Your task to perform on an android device: see creations saved in the google photos Image 0: 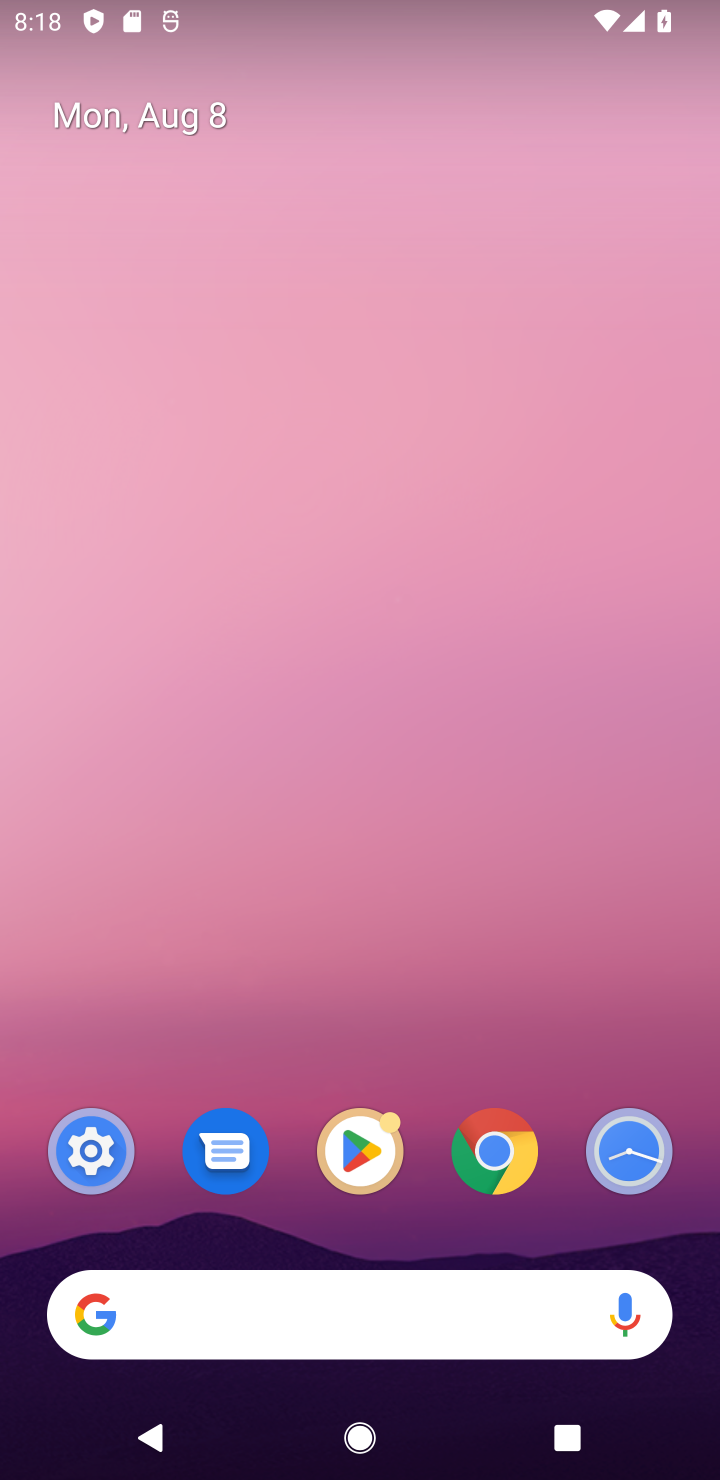
Step 0: drag from (489, 970) to (365, 0)
Your task to perform on an android device: see creations saved in the google photos Image 1: 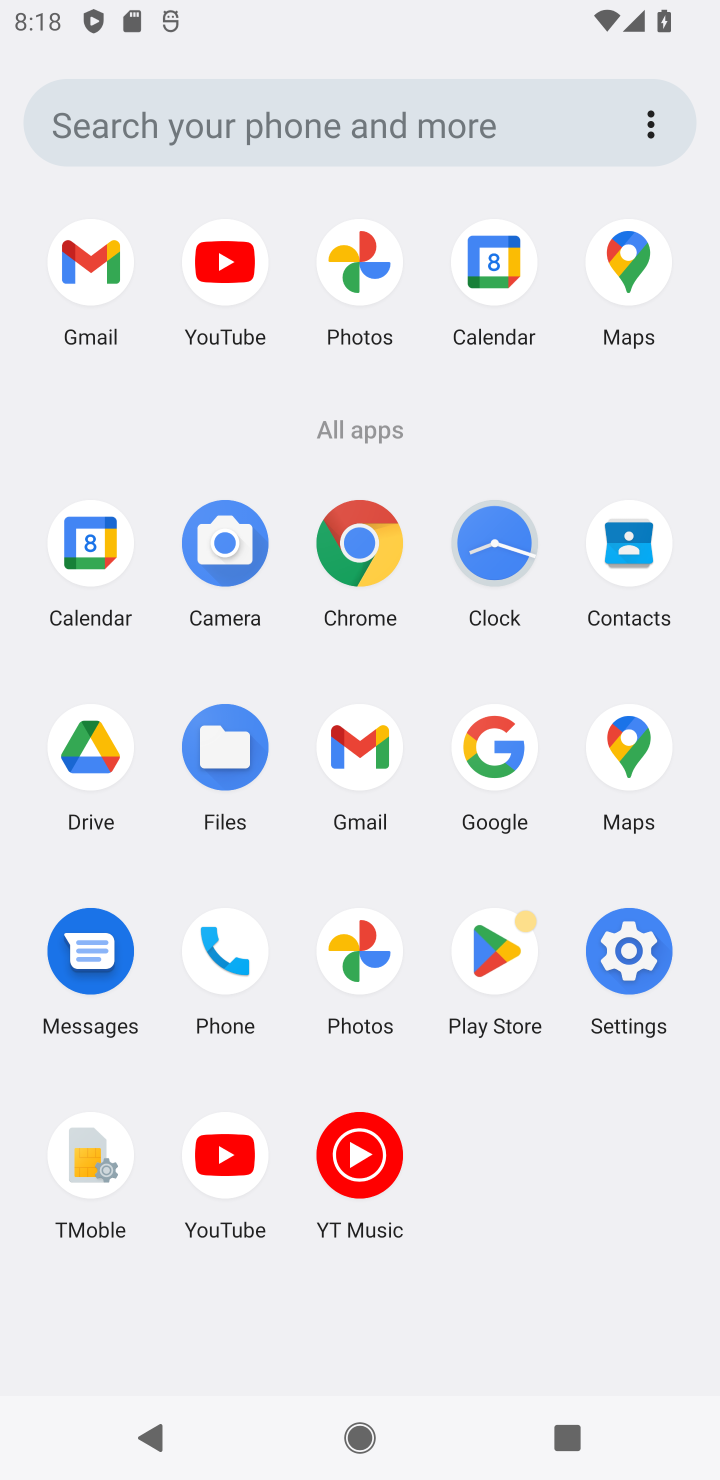
Step 1: click (336, 958)
Your task to perform on an android device: see creations saved in the google photos Image 2: 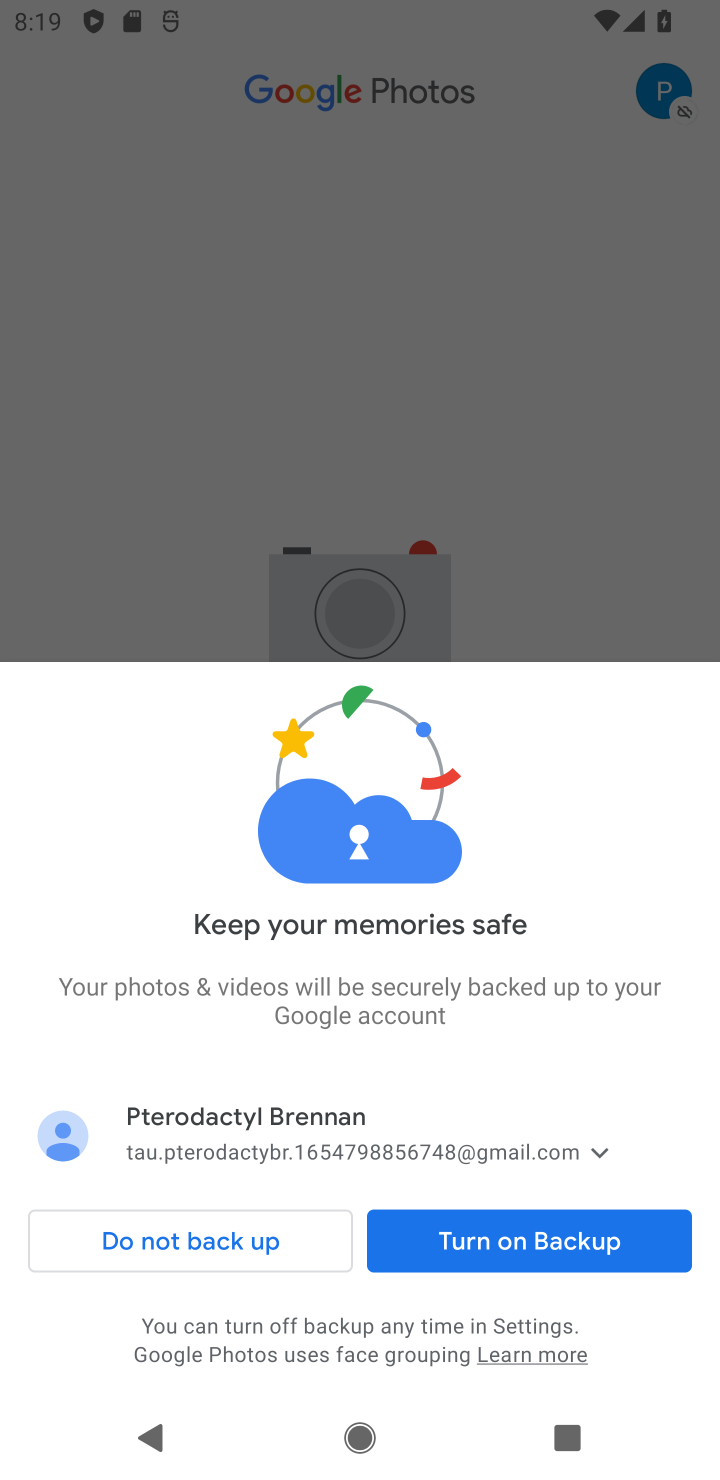
Step 2: click (601, 1235)
Your task to perform on an android device: see creations saved in the google photos Image 3: 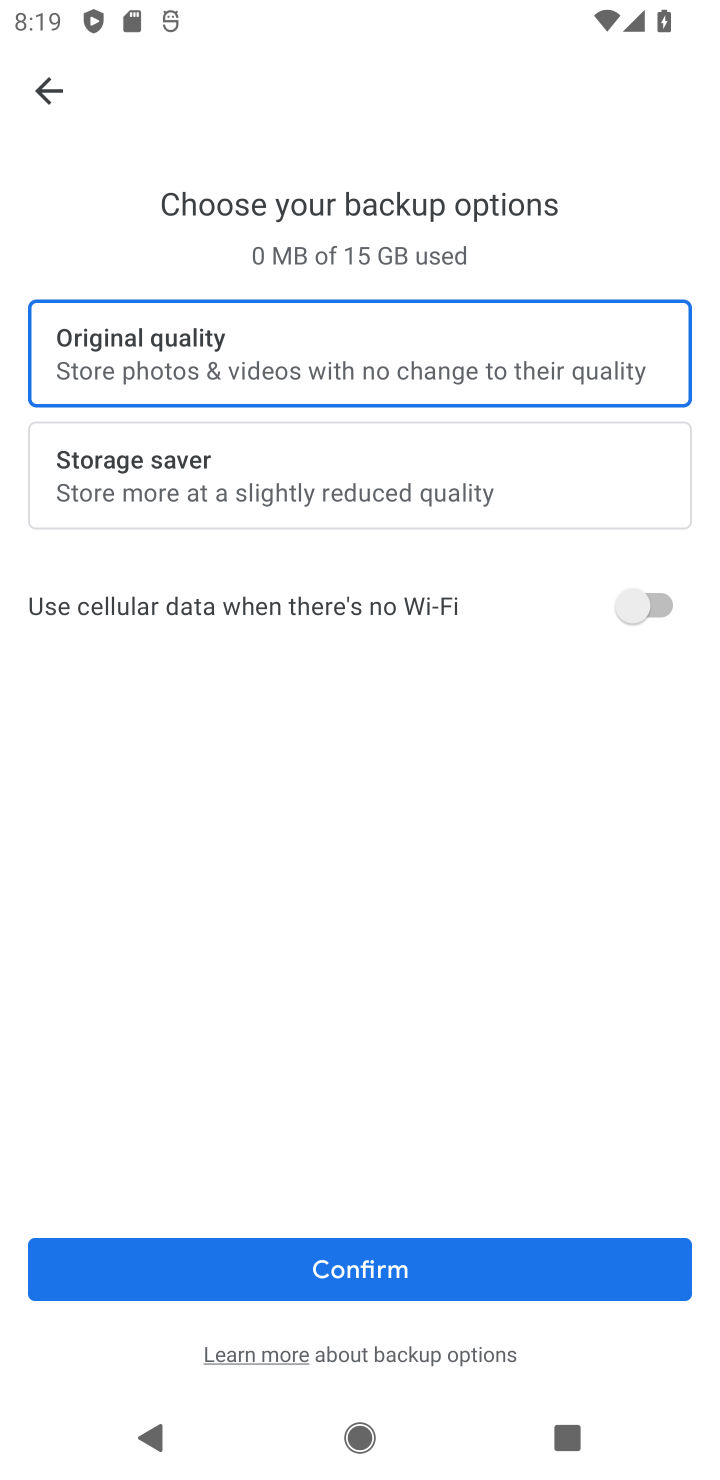
Step 3: click (546, 1258)
Your task to perform on an android device: see creations saved in the google photos Image 4: 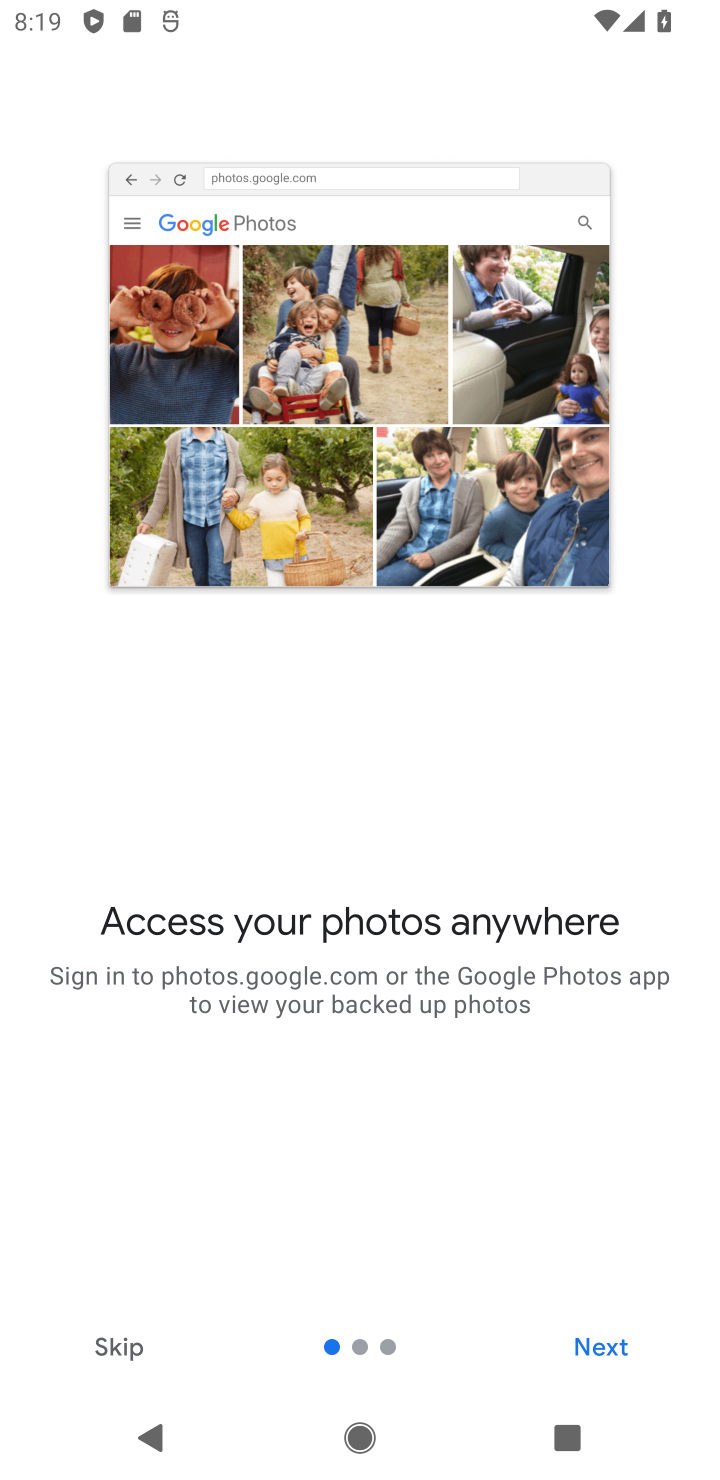
Step 4: click (103, 1354)
Your task to perform on an android device: see creations saved in the google photos Image 5: 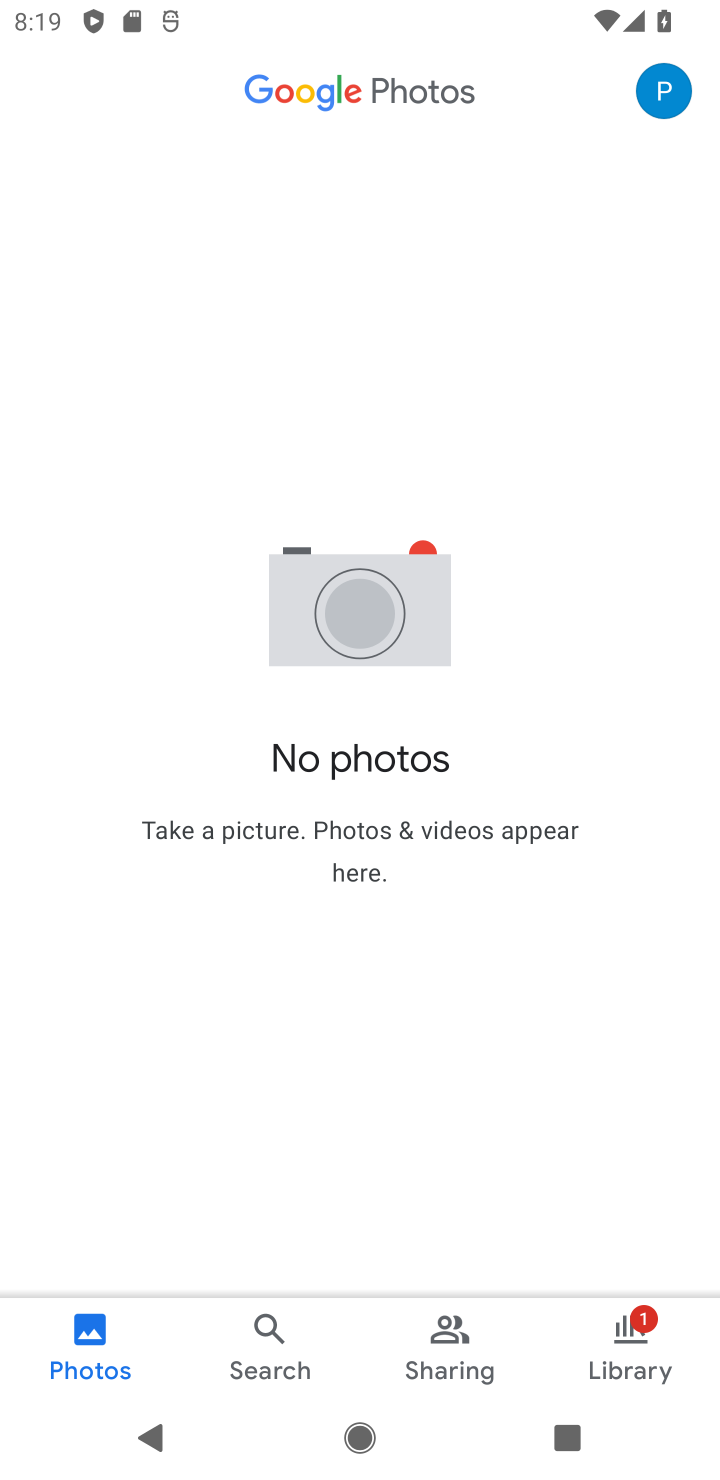
Step 5: click (277, 1317)
Your task to perform on an android device: see creations saved in the google photos Image 6: 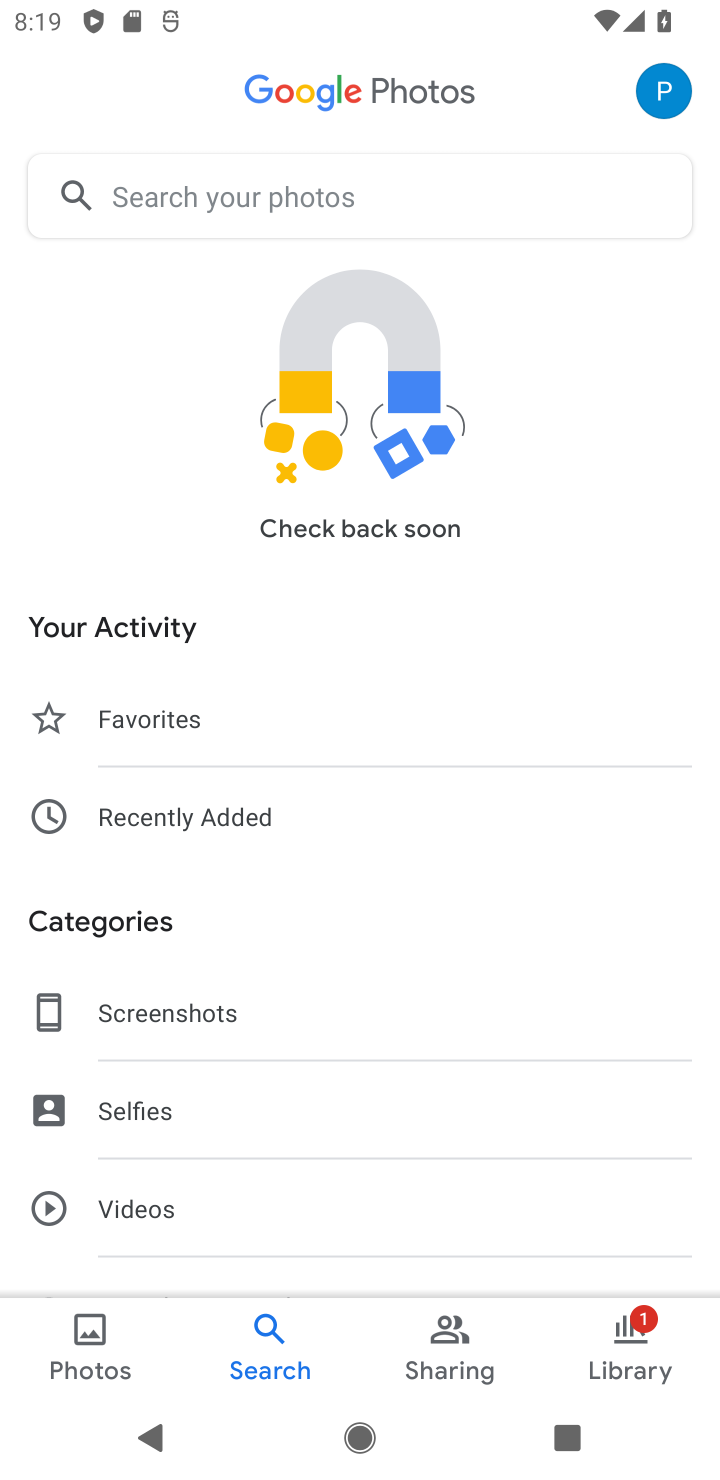
Step 6: click (328, 175)
Your task to perform on an android device: see creations saved in the google photos Image 7: 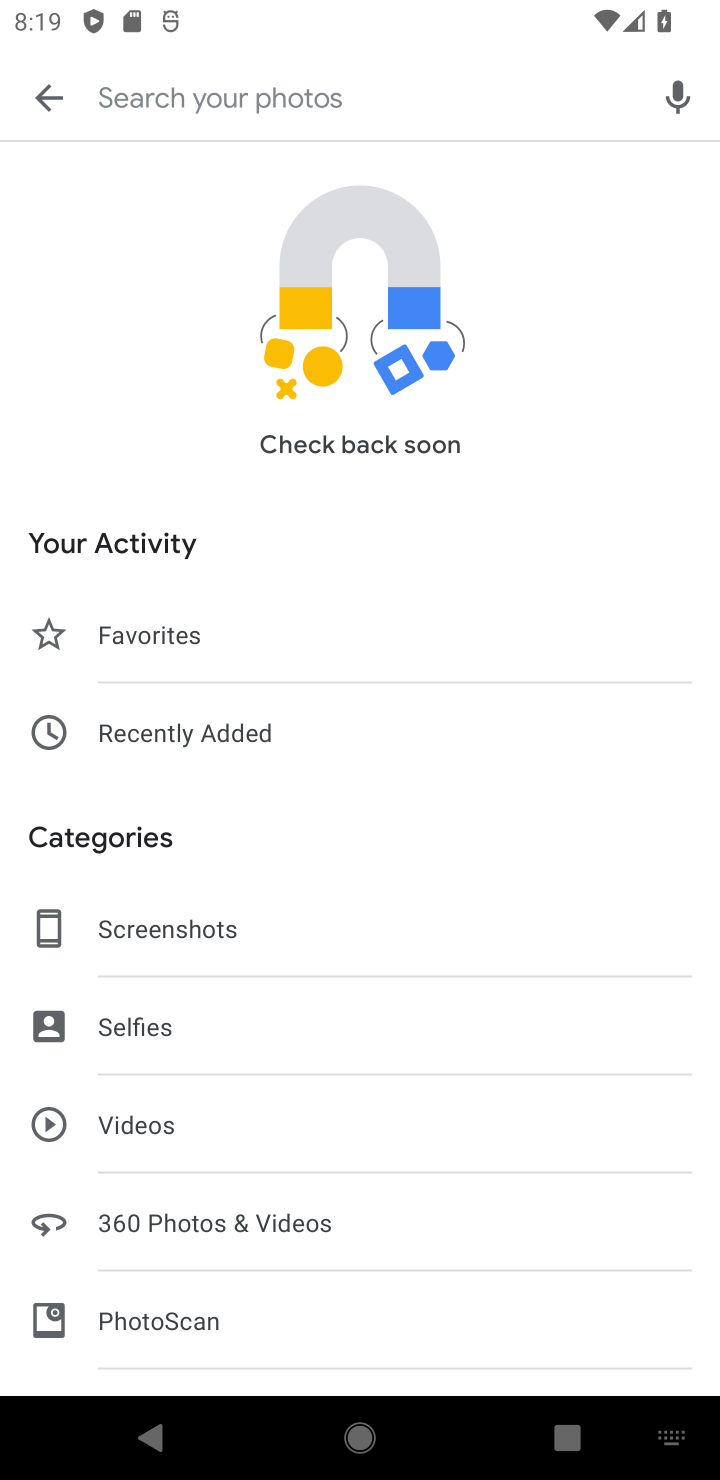
Step 7: drag from (334, 1056) to (184, 515)
Your task to perform on an android device: see creations saved in the google photos Image 8: 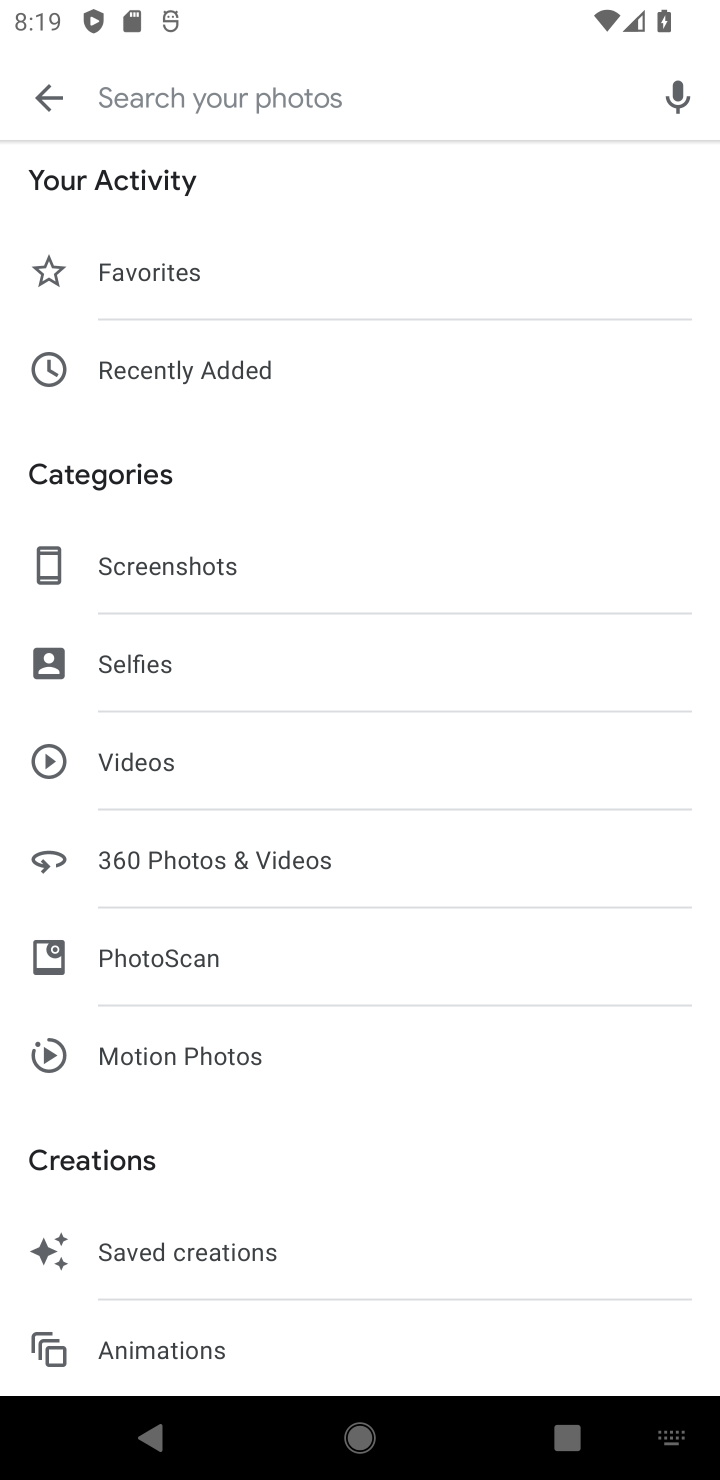
Step 8: click (264, 1238)
Your task to perform on an android device: see creations saved in the google photos Image 9: 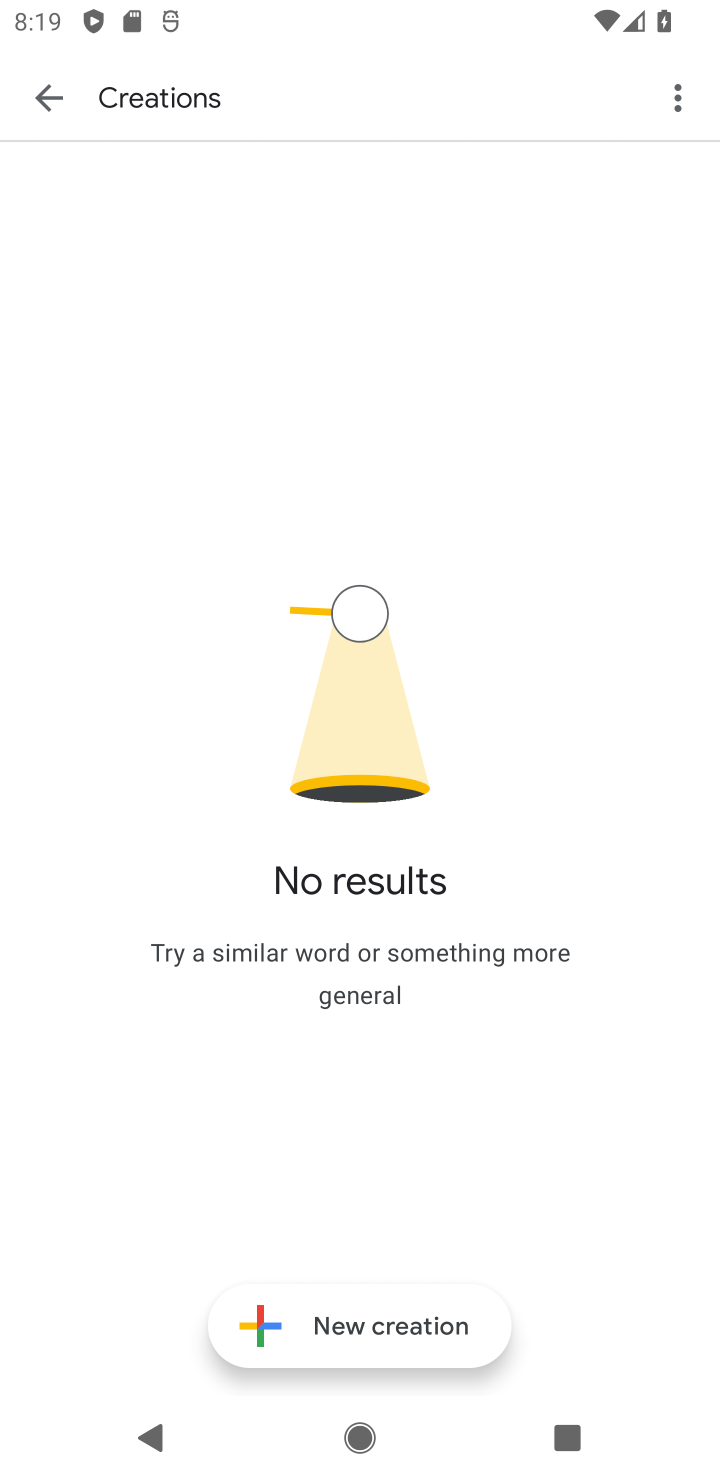
Step 9: task complete